Your task to perform on an android device: What's the weather? Image 0: 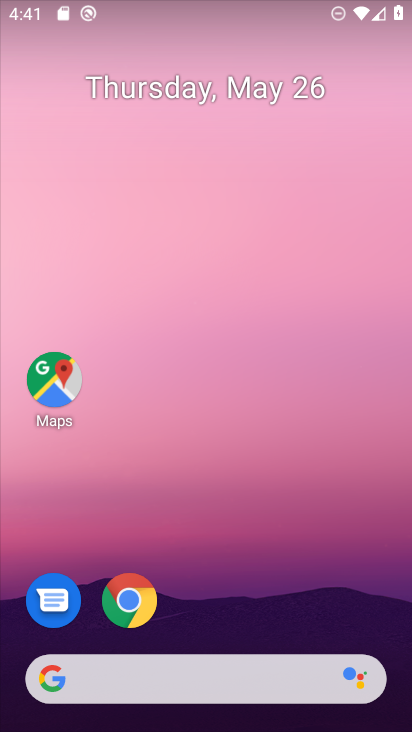
Step 0: click (240, 92)
Your task to perform on an android device: What's the weather? Image 1: 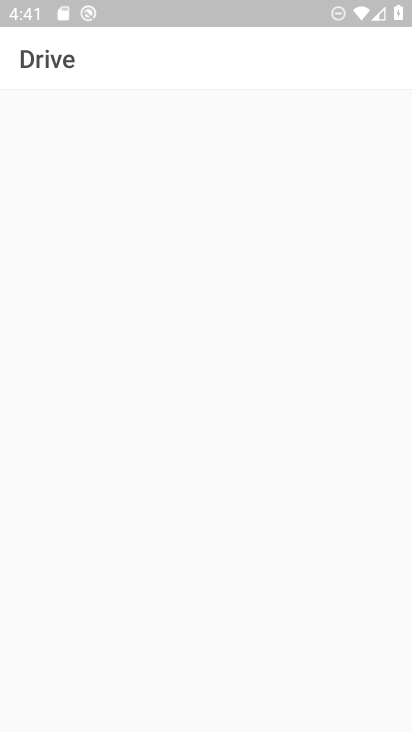
Step 1: press home button
Your task to perform on an android device: What's the weather? Image 2: 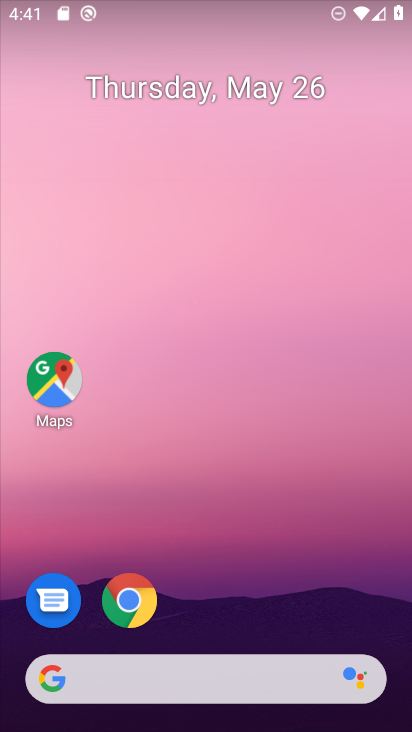
Step 2: click (131, 600)
Your task to perform on an android device: What's the weather? Image 3: 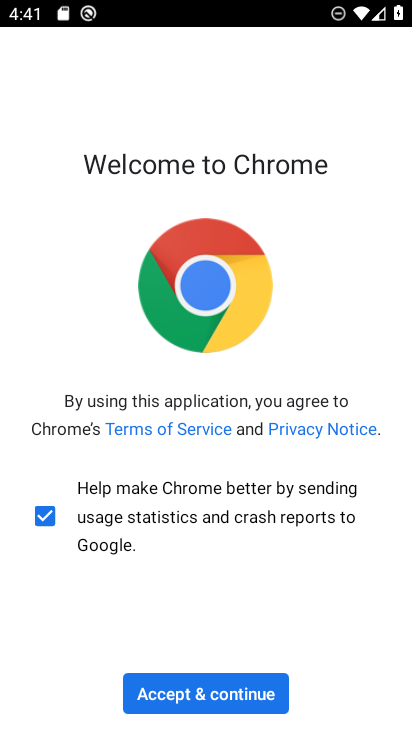
Step 3: click (244, 698)
Your task to perform on an android device: What's the weather? Image 4: 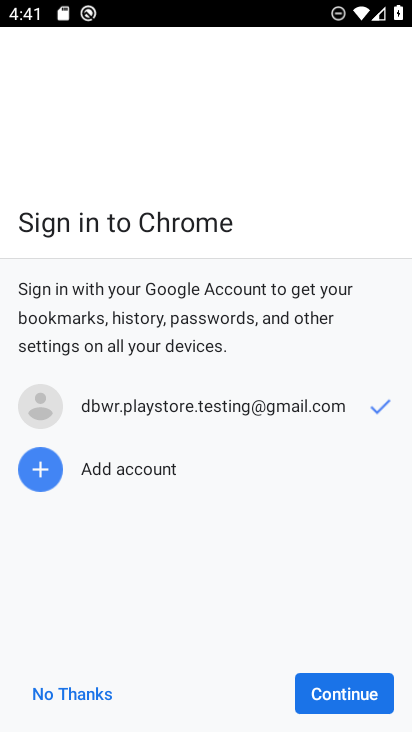
Step 4: click (356, 694)
Your task to perform on an android device: What's the weather? Image 5: 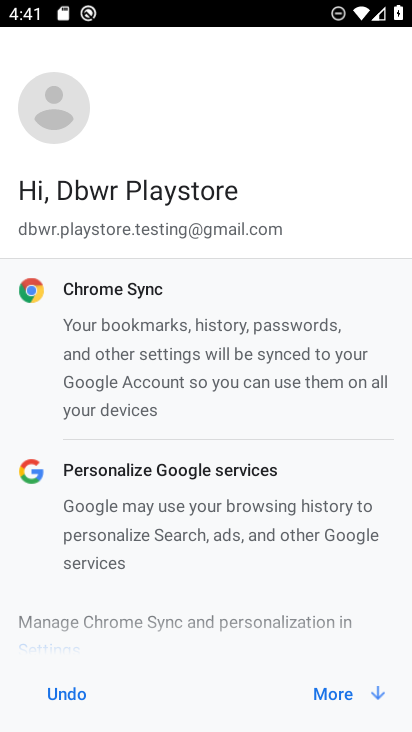
Step 5: click (355, 694)
Your task to perform on an android device: What's the weather? Image 6: 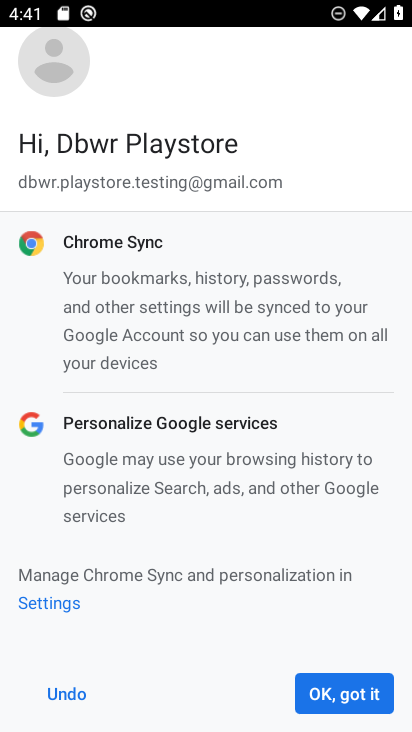
Step 6: click (355, 694)
Your task to perform on an android device: What's the weather? Image 7: 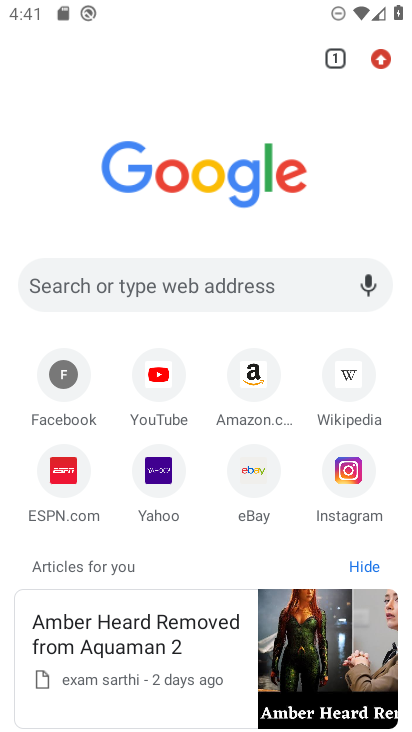
Step 7: click (172, 259)
Your task to perform on an android device: What's the weather? Image 8: 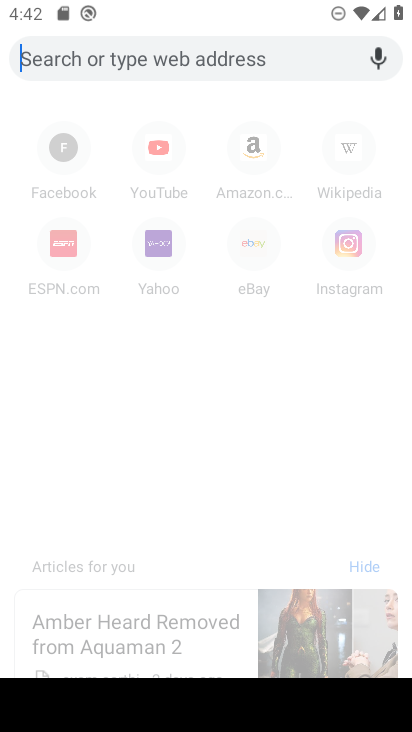
Step 8: type "weather"
Your task to perform on an android device: What's the weather? Image 9: 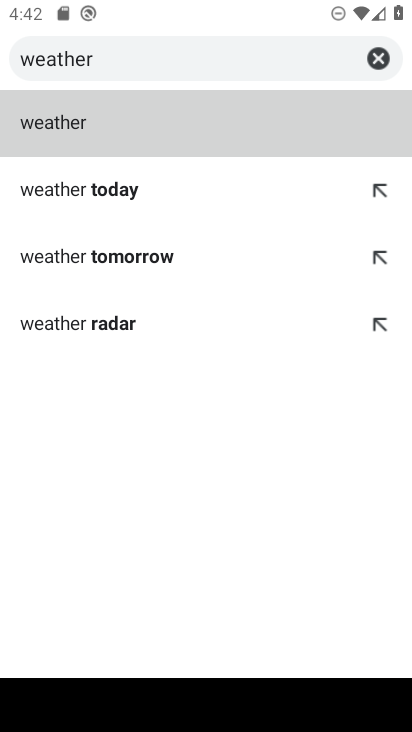
Step 9: click (95, 178)
Your task to perform on an android device: What's the weather? Image 10: 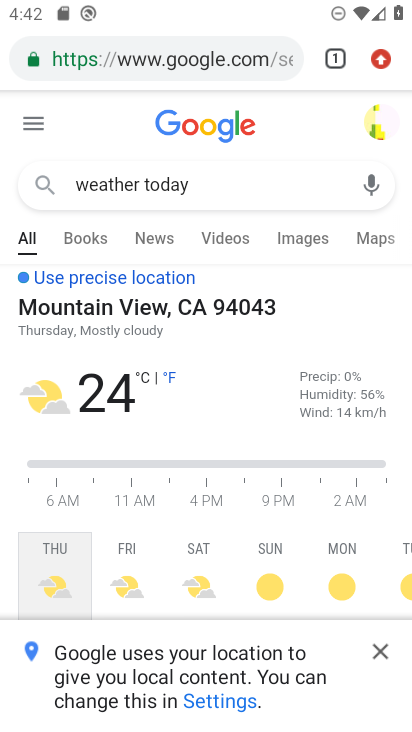
Step 10: click (376, 653)
Your task to perform on an android device: What's the weather? Image 11: 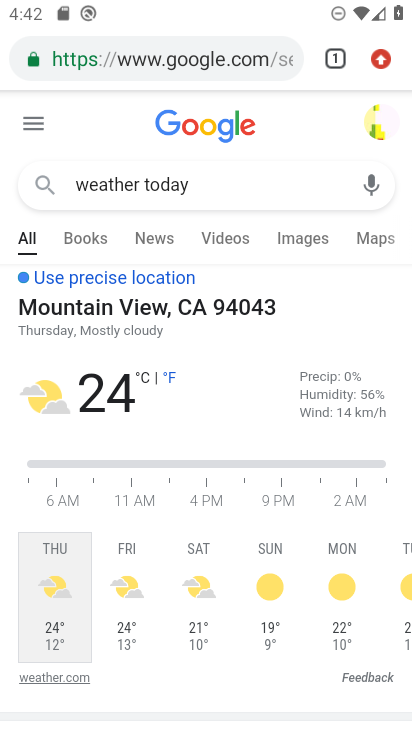
Step 11: task complete